Your task to perform on an android device: turn on notifications settings in the gmail app Image 0: 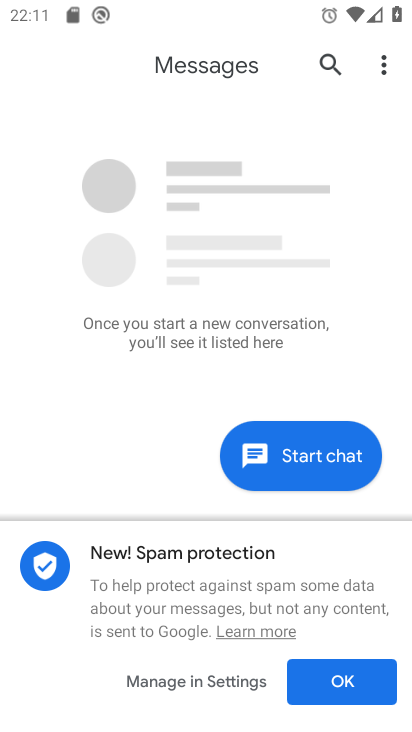
Step 0: press home button
Your task to perform on an android device: turn on notifications settings in the gmail app Image 1: 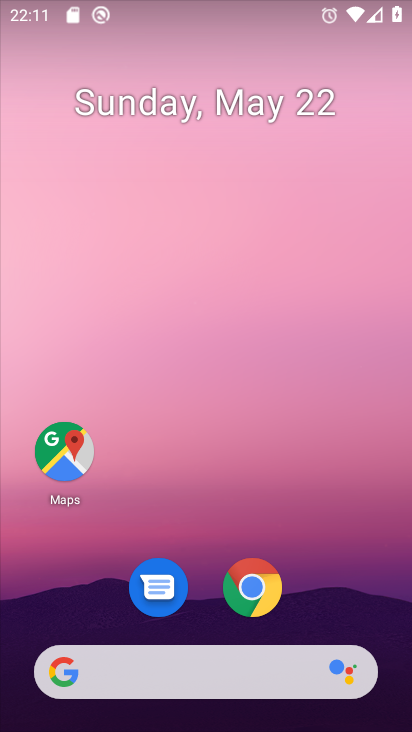
Step 1: drag from (228, 470) to (253, 96)
Your task to perform on an android device: turn on notifications settings in the gmail app Image 2: 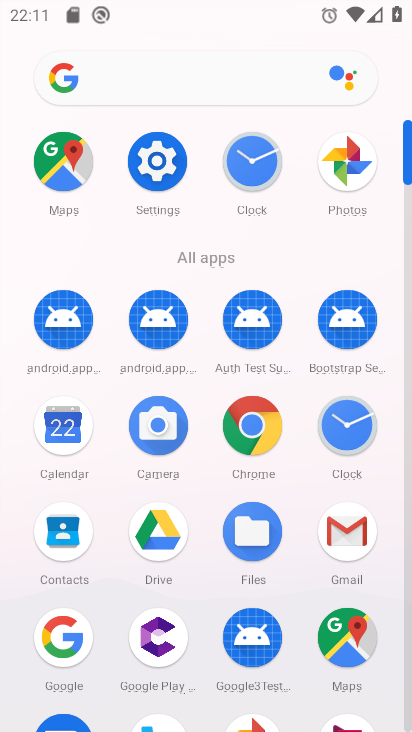
Step 2: click (339, 524)
Your task to perform on an android device: turn on notifications settings in the gmail app Image 3: 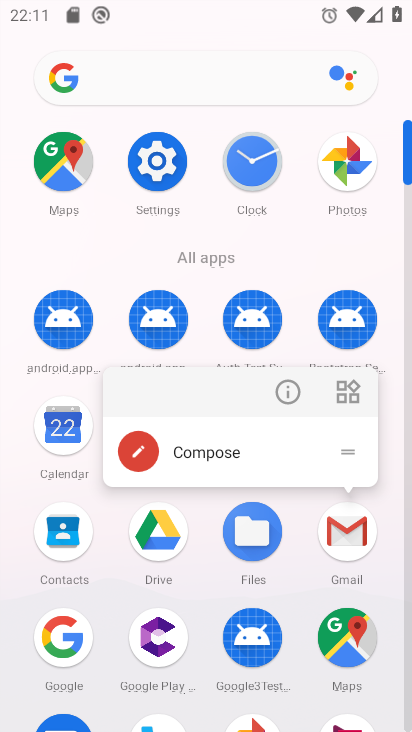
Step 3: click (342, 524)
Your task to perform on an android device: turn on notifications settings in the gmail app Image 4: 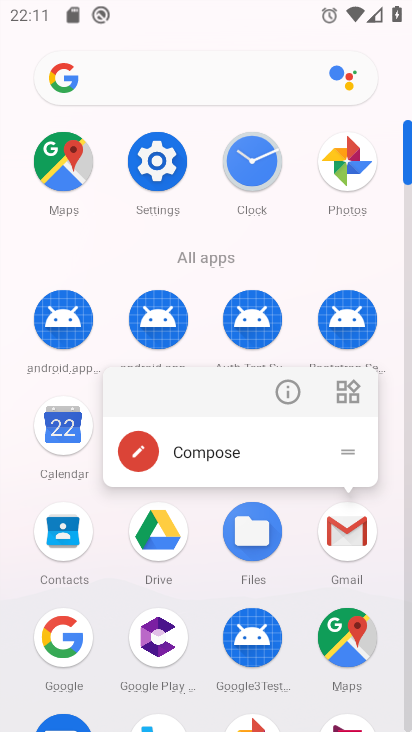
Step 4: click (347, 527)
Your task to perform on an android device: turn on notifications settings in the gmail app Image 5: 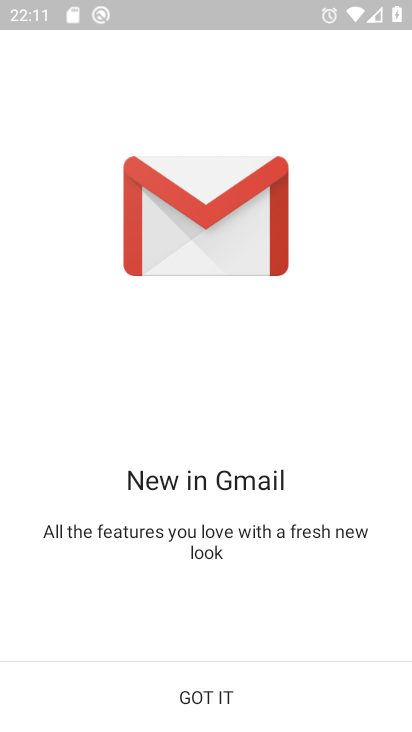
Step 5: click (280, 686)
Your task to perform on an android device: turn on notifications settings in the gmail app Image 6: 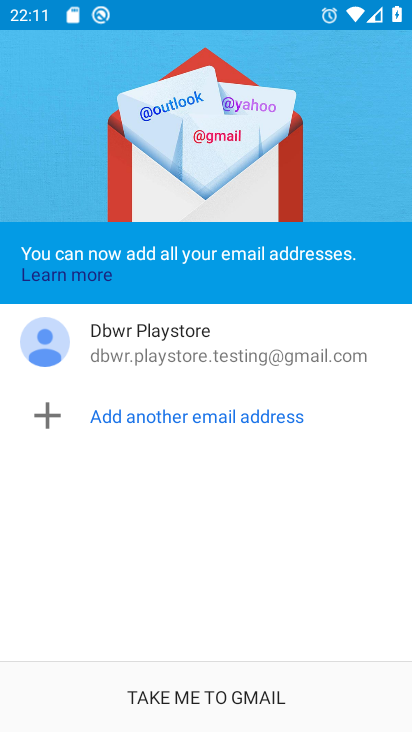
Step 6: click (280, 687)
Your task to perform on an android device: turn on notifications settings in the gmail app Image 7: 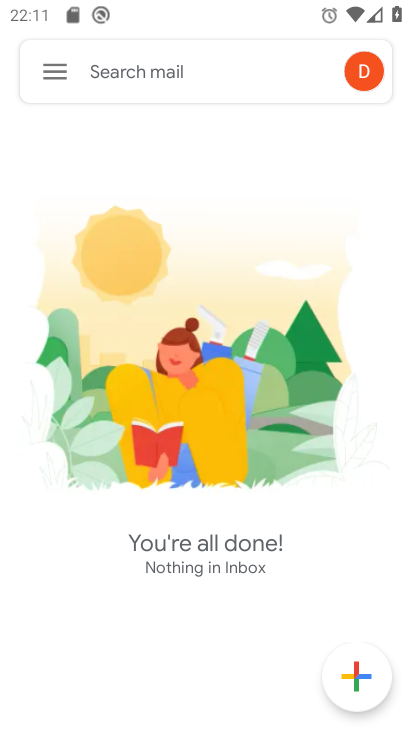
Step 7: click (58, 64)
Your task to perform on an android device: turn on notifications settings in the gmail app Image 8: 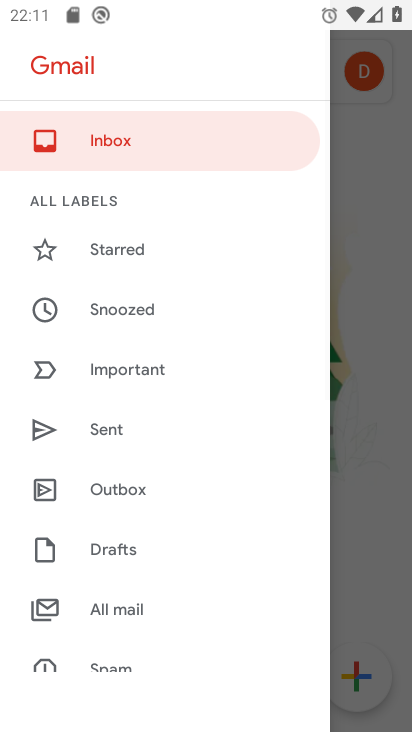
Step 8: drag from (153, 546) to (163, 153)
Your task to perform on an android device: turn on notifications settings in the gmail app Image 9: 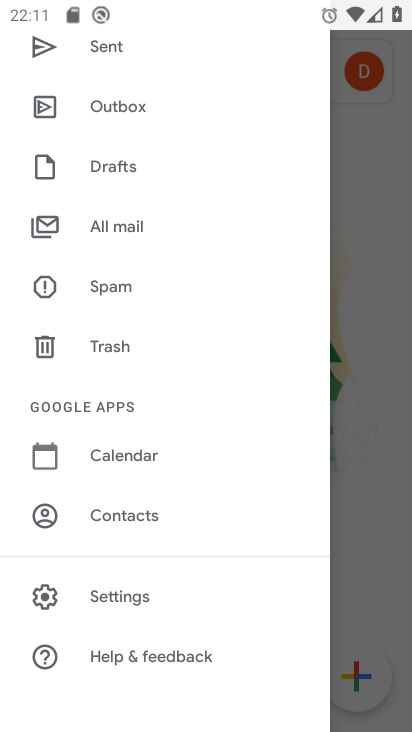
Step 9: click (130, 587)
Your task to perform on an android device: turn on notifications settings in the gmail app Image 10: 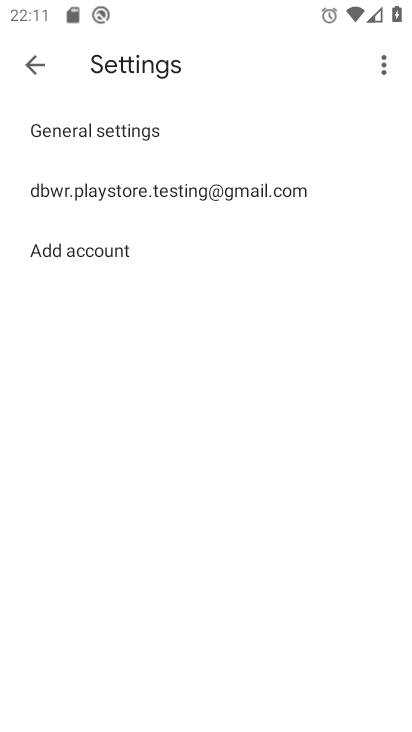
Step 10: click (239, 186)
Your task to perform on an android device: turn on notifications settings in the gmail app Image 11: 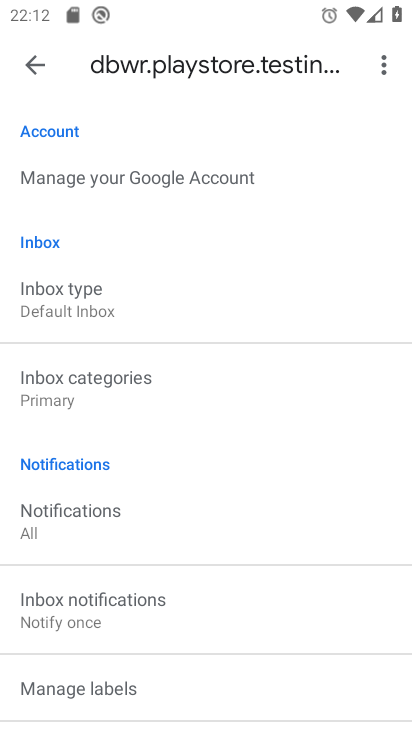
Step 11: drag from (220, 596) to (235, 313)
Your task to perform on an android device: turn on notifications settings in the gmail app Image 12: 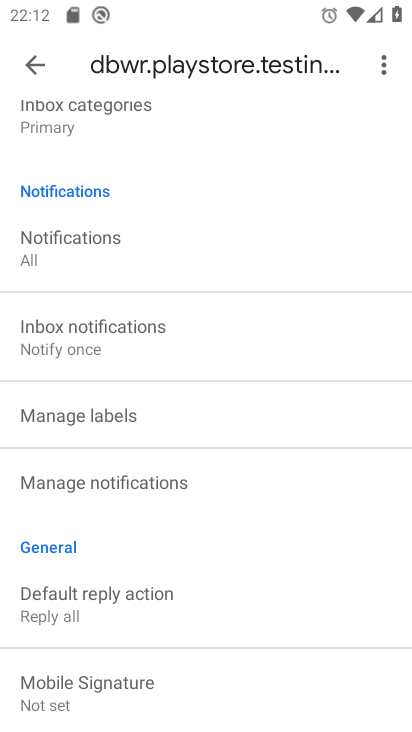
Step 12: click (203, 469)
Your task to perform on an android device: turn on notifications settings in the gmail app Image 13: 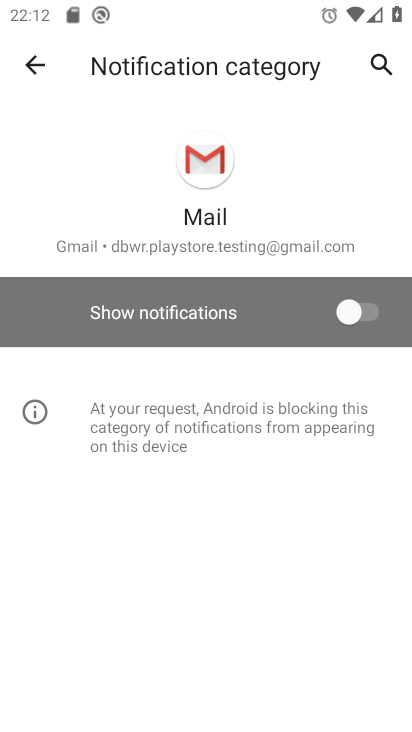
Step 13: click (355, 303)
Your task to perform on an android device: turn on notifications settings in the gmail app Image 14: 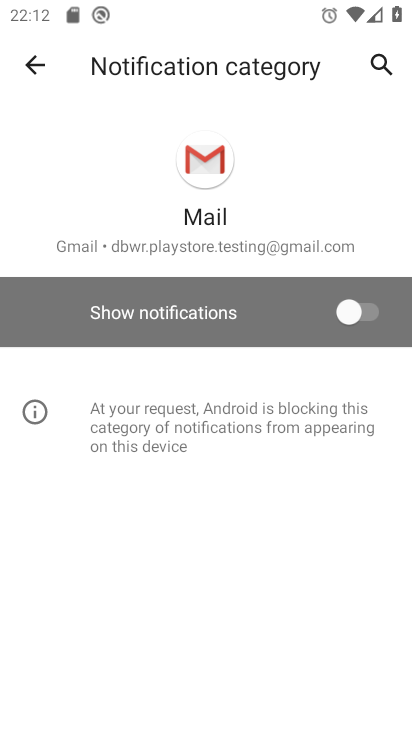
Step 14: click (369, 305)
Your task to perform on an android device: turn on notifications settings in the gmail app Image 15: 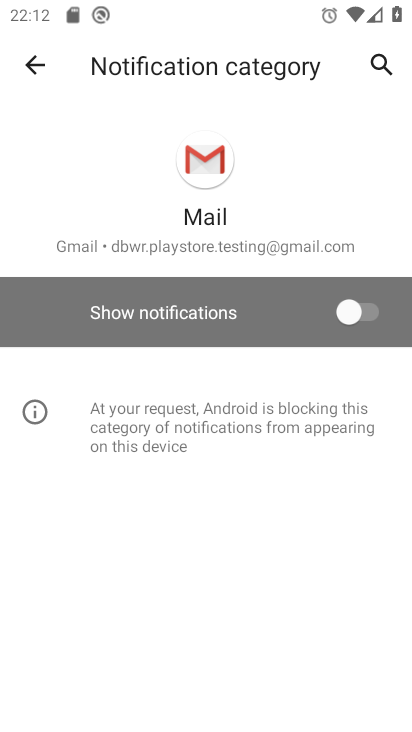
Step 15: click (353, 314)
Your task to perform on an android device: turn on notifications settings in the gmail app Image 16: 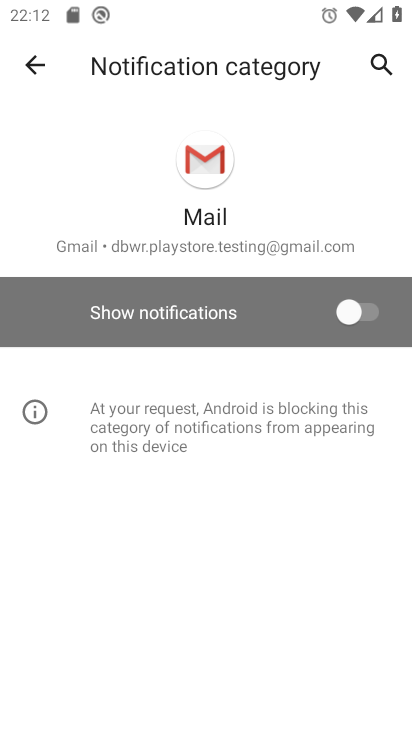
Step 16: click (35, 56)
Your task to perform on an android device: turn on notifications settings in the gmail app Image 17: 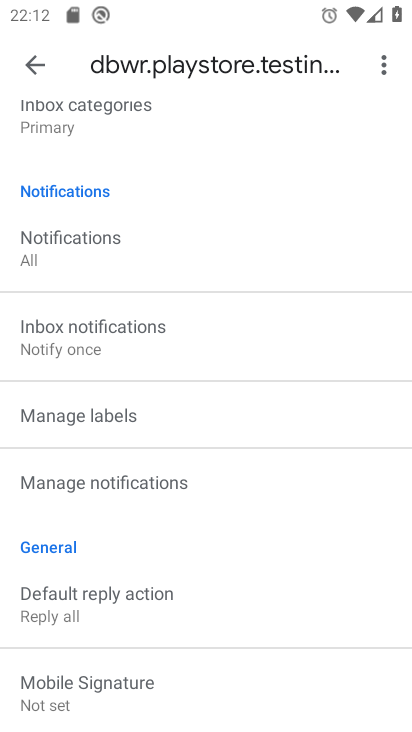
Step 17: click (37, 58)
Your task to perform on an android device: turn on notifications settings in the gmail app Image 18: 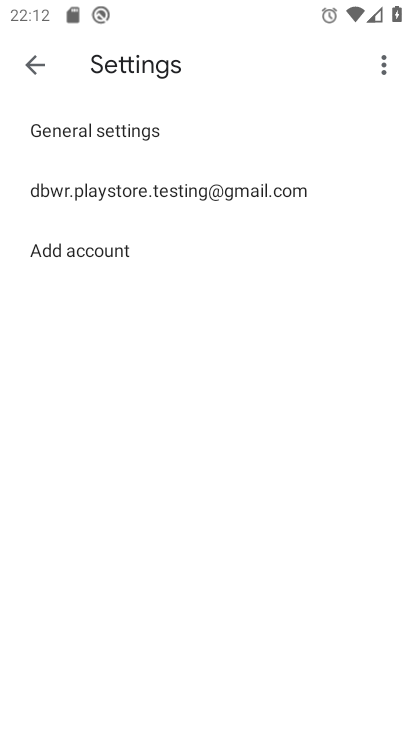
Step 18: click (107, 120)
Your task to perform on an android device: turn on notifications settings in the gmail app Image 19: 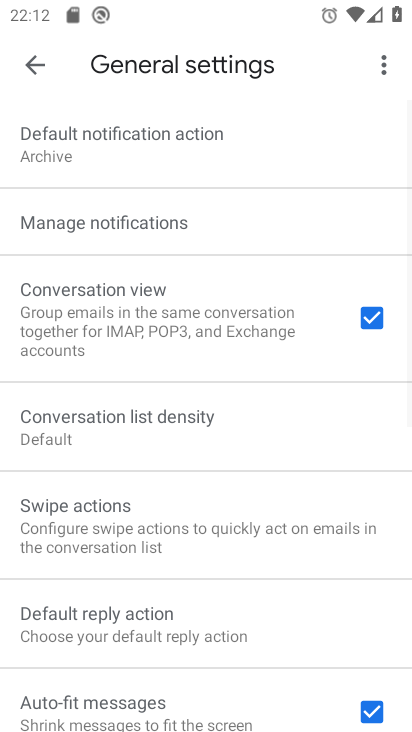
Step 19: click (146, 216)
Your task to perform on an android device: turn on notifications settings in the gmail app Image 20: 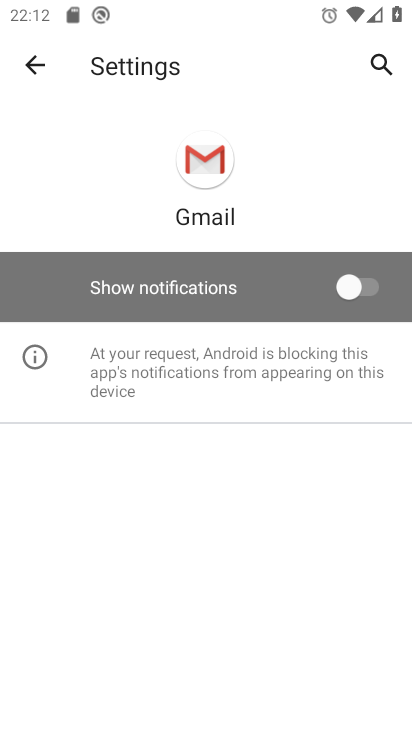
Step 20: click (358, 289)
Your task to perform on an android device: turn on notifications settings in the gmail app Image 21: 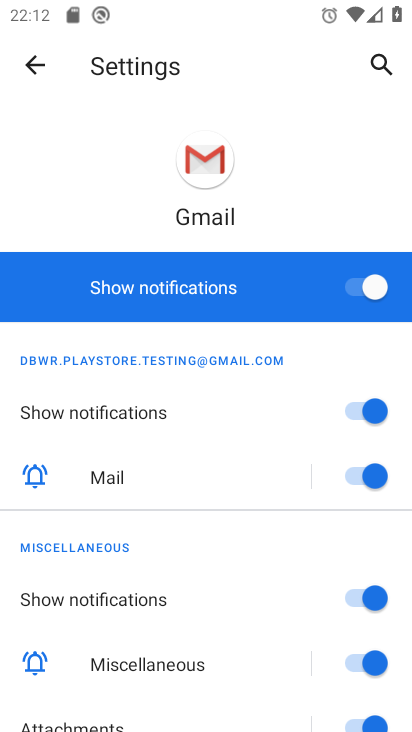
Step 21: task complete